Your task to perform on an android device: Clear all items from cart on target. Add "lenovo thinkpad" to the cart on target Image 0: 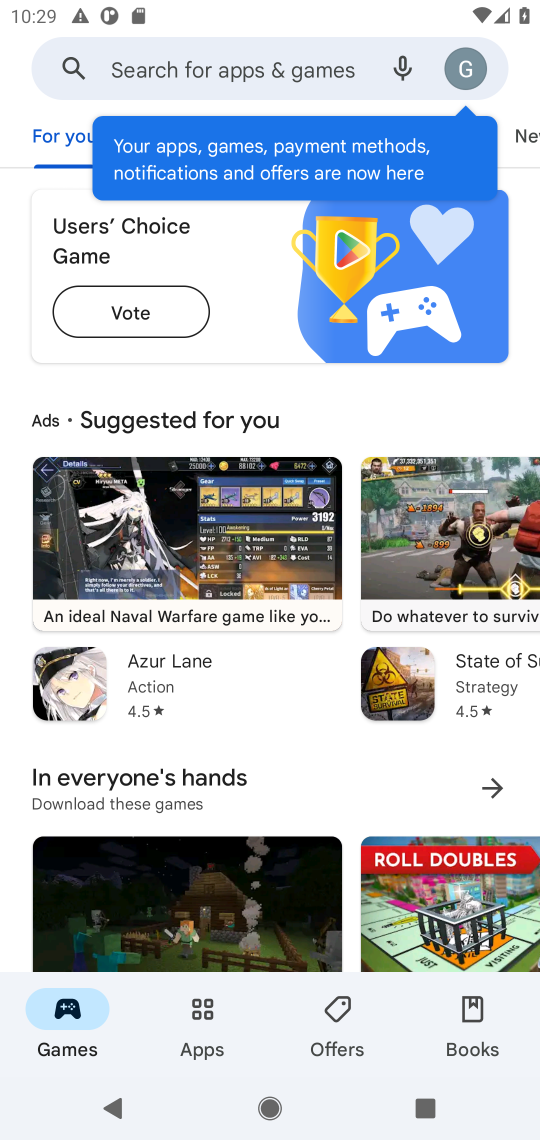
Step 0: press home button
Your task to perform on an android device: Clear all items from cart on target. Add "lenovo thinkpad" to the cart on target Image 1: 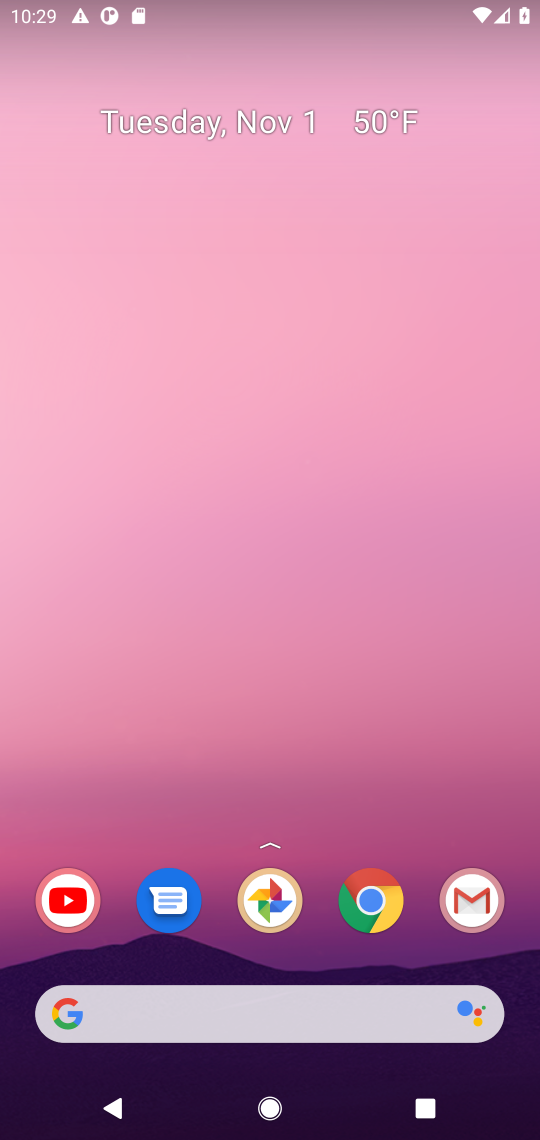
Step 1: click (351, 915)
Your task to perform on an android device: Clear all items from cart on target. Add "lenovo thinkpad" to the cart on target Image 2: 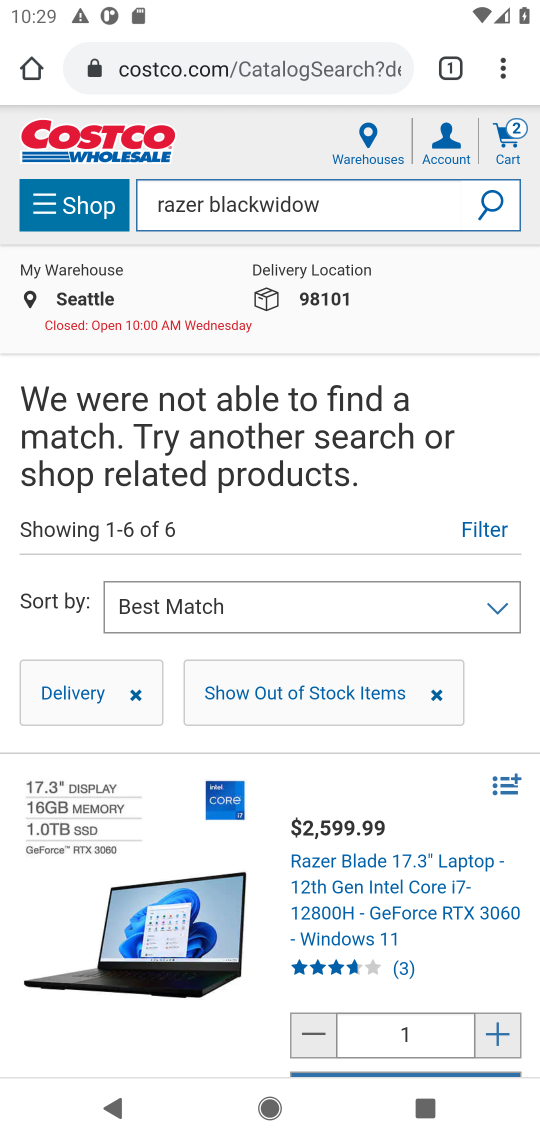
Step 2: click (270, 75)
Your task to perform on an android device: Clear all items from cart on target. Add "lenovo thinkpad" to the cart on target Image 3: 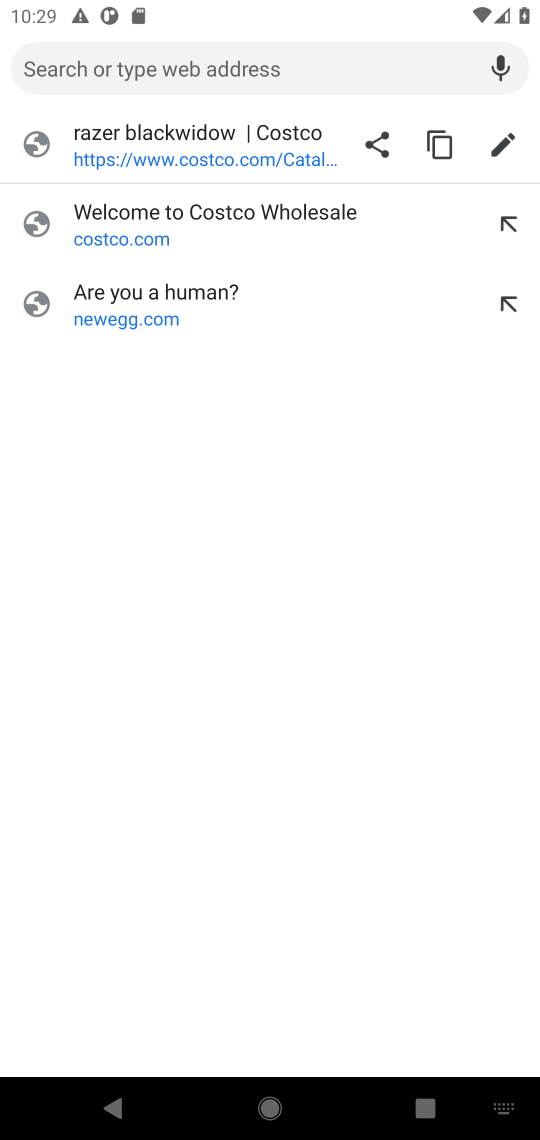
Step 3: type "target"
Your task to perform on an android device: Clear all items from cart on target. Add "lenovo thinkpad" to the cart on target Image 4: 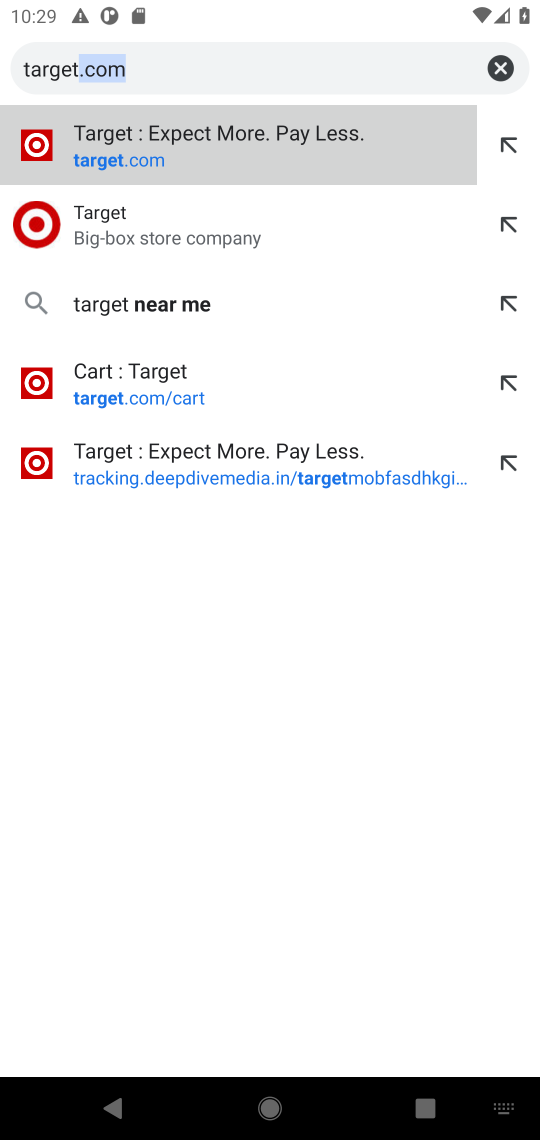
Step 4: click (125, 217)
Your task to perform on an android device: Clear all items from cart on target. Add "lenovo thinkpad" to the cart on target Image 5: 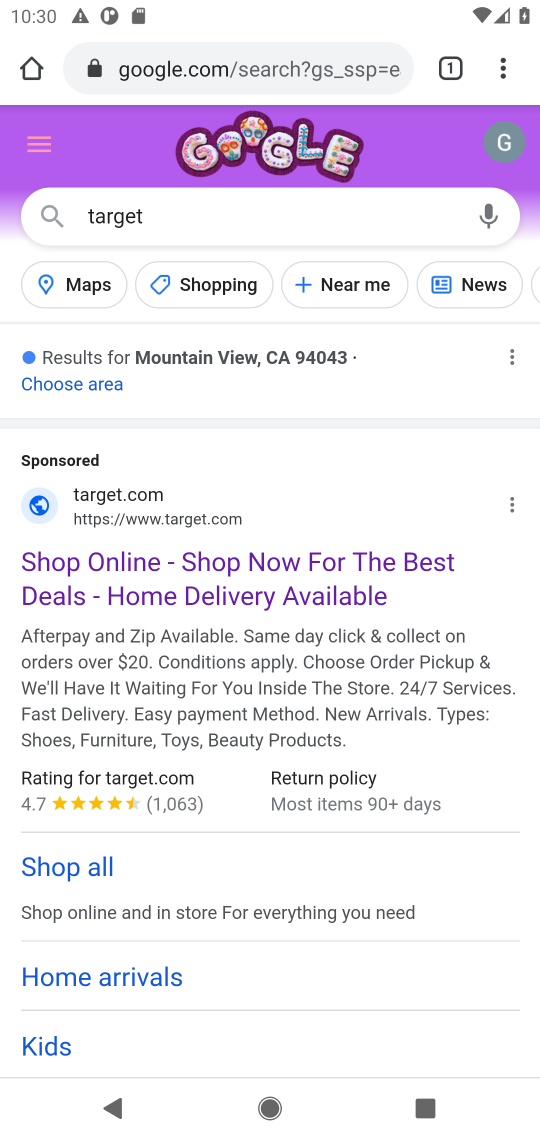
Step 5: click (110, 542)
Your task to perform on an android device: Clear all items from cart on target. Add "lenovo thinkpad" to the cart on target Image 6: 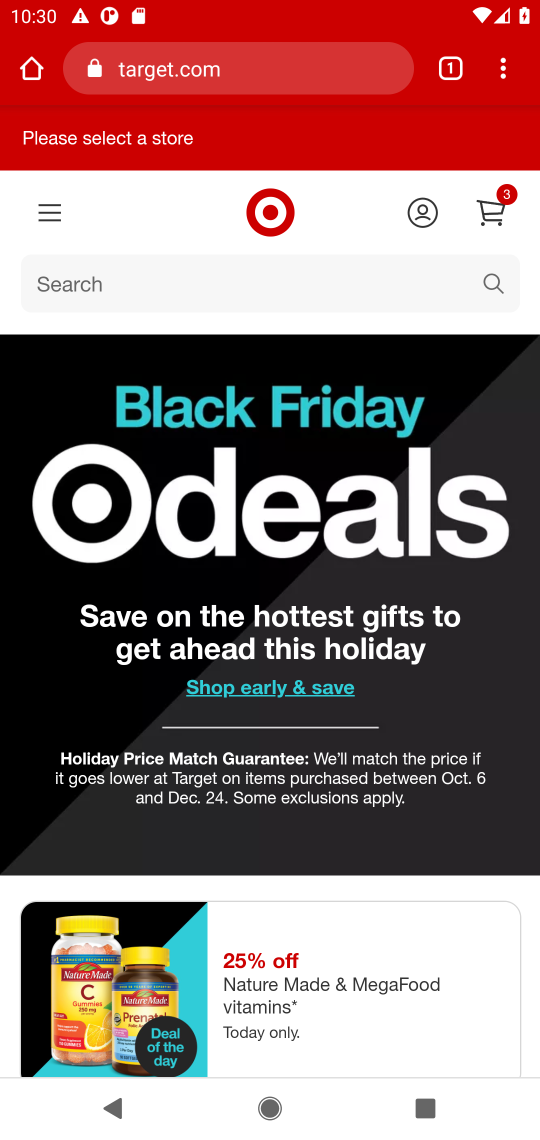
Step 6: click (506, 189)
Your task to perform on an android device: Clear all items from cart on target. Add "lenovo thinkpad" to the cart on target Image 7: 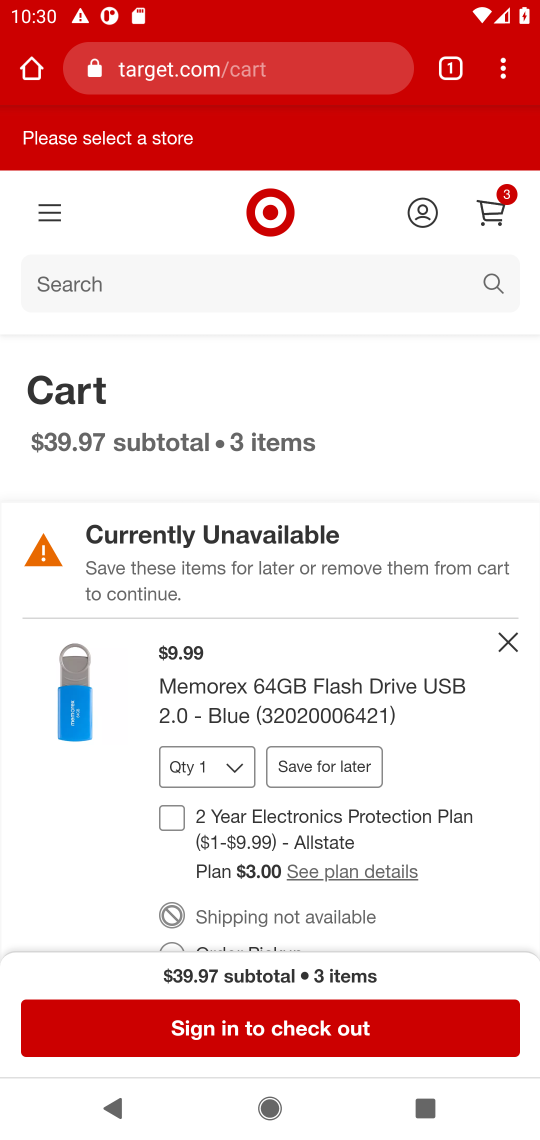
Step 7: click (511, 638)
Your task to perform on an android device: Clear all items from cart on target. Add "lenovo thinkpad" to the cart on target Image 8: 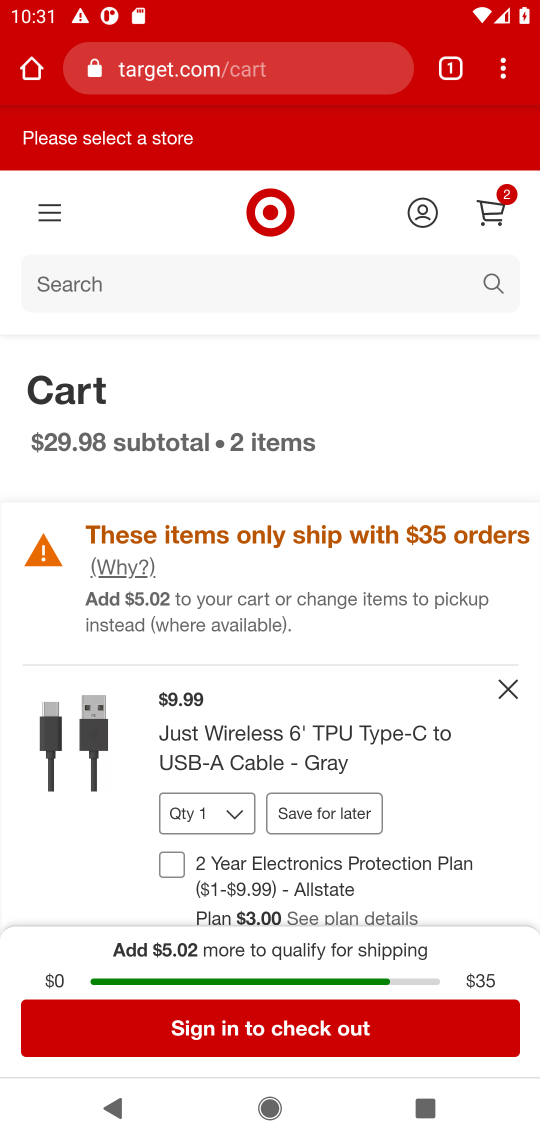
Step 8: click (504, 686)
Your task to perform on an android device: Clear all items from cart on target. Add "lenovo thinkpad" to the cart on target Image 9: 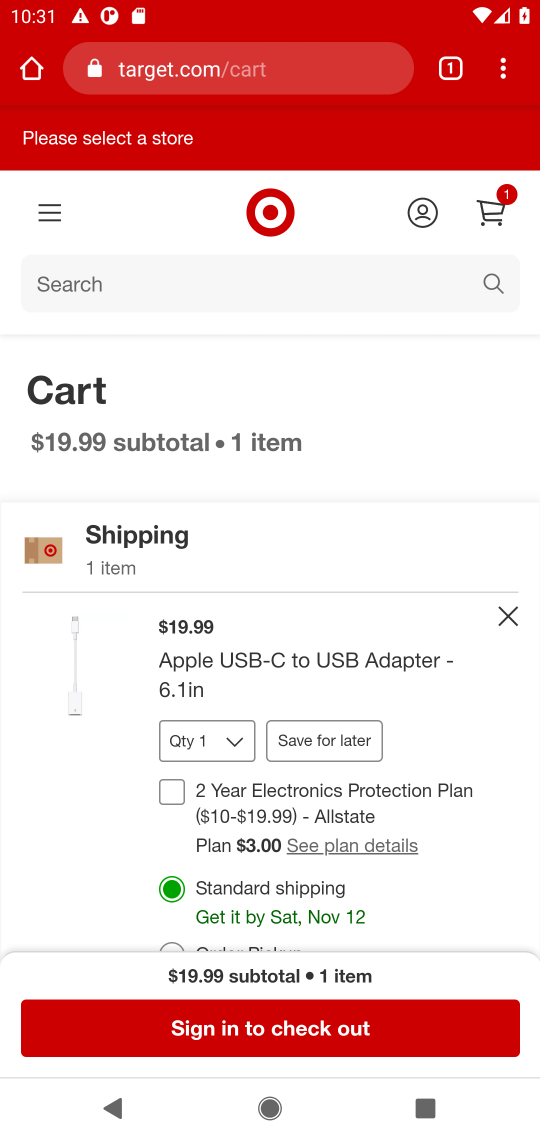
Step 9: click (500, 610)
Your task to perform on an android device: Clear all items from cart on target. Add "lenovo thinkpad" to the cart on target Image 10: 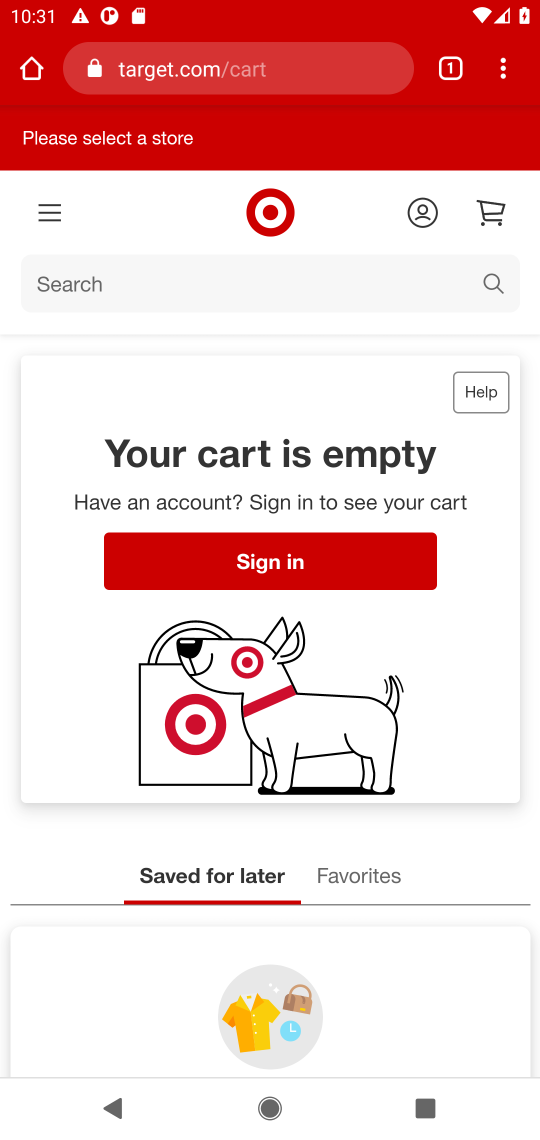
Step 10: click (335, 277)
Your task to perform on an android device: Clear all items from cart on target. Add "lenovo thinkpad" to the cart on target Image 11: 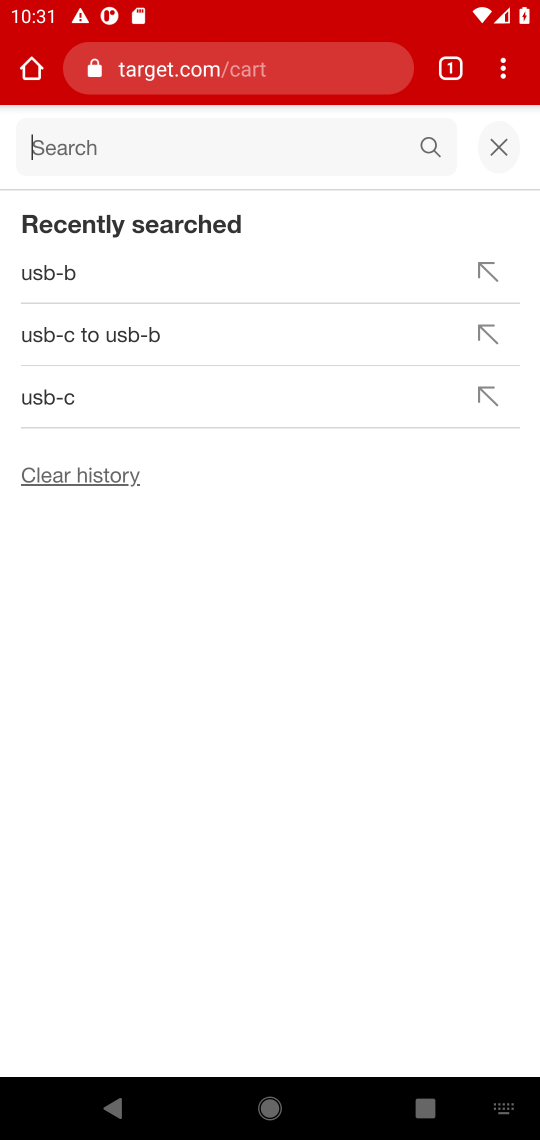
Step 11: type "lenovo thinkpad"
Your task to perform on an android device: Clear all items from cart on target. Add "lenovo thinkpad" to the cart on target Image 12: 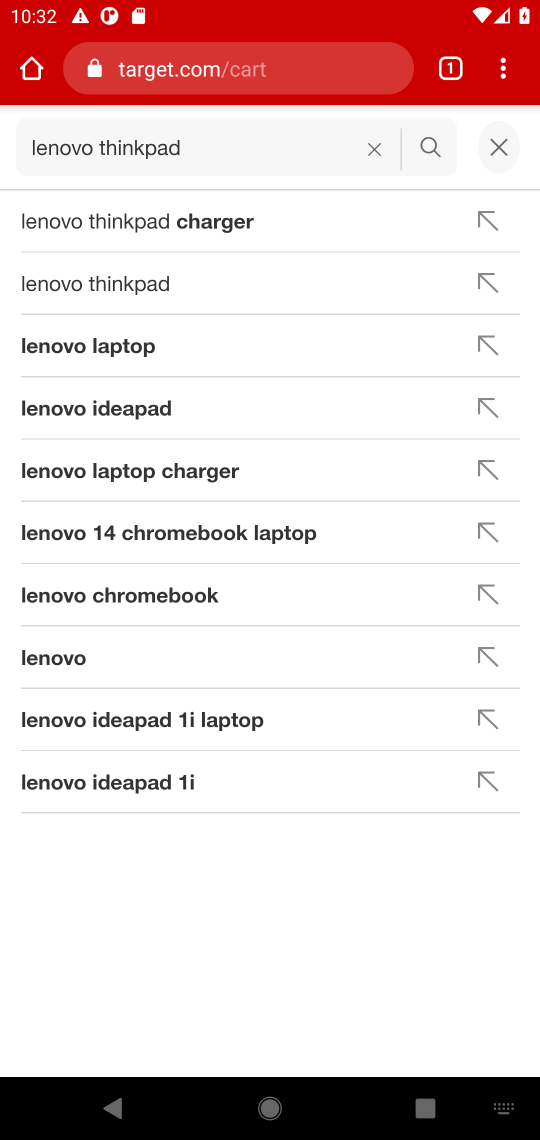
Step 12: click (430, 144)
Your task to perform on an android device: Clear all items from cart on target. Add "lenovo thinkpad" to the cart on target Image 13: 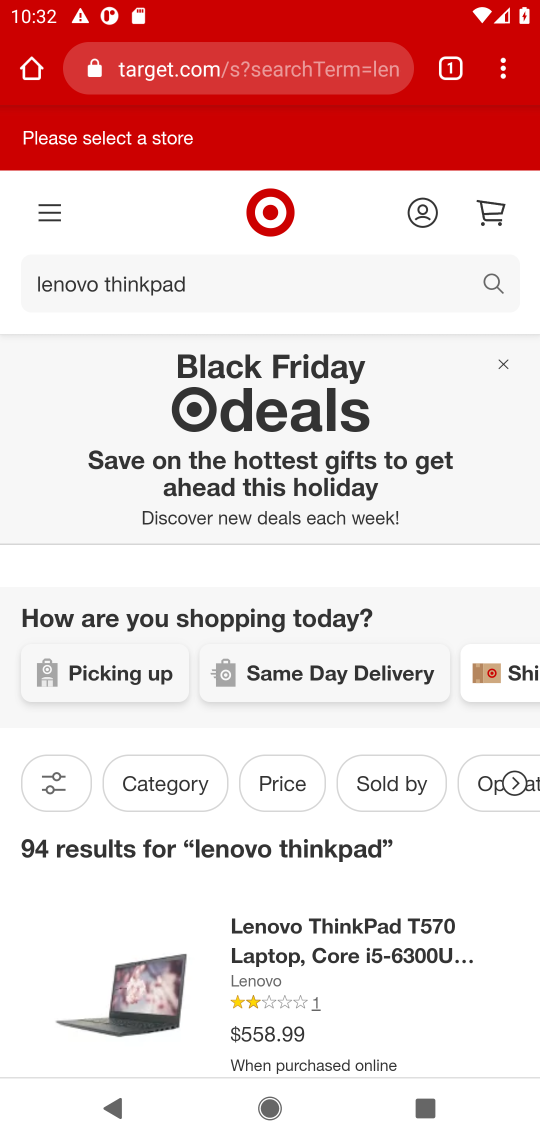
Step 13: drag from (412, 1002) to (468, 271)
Your task to perform on an android device: Clear all items from cart on target. Add "lenovo thinkpad" to the cart on target Image 14: 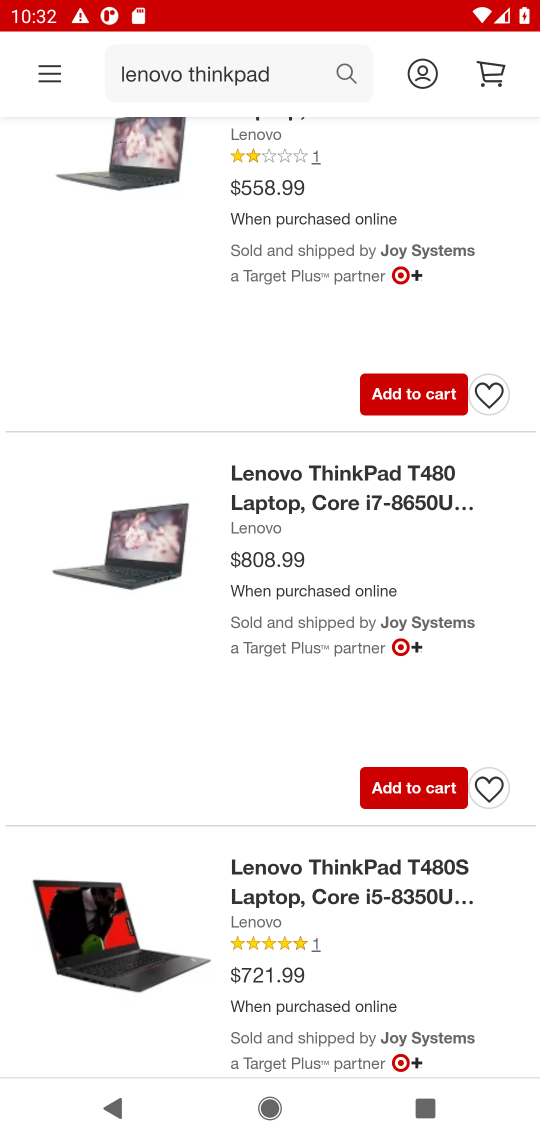
Step 14: click (415, 402)
Your task to perform on an android device: Clear all items from cart on target. Add "lenovo thinkpad" to the cart on target Image 15: 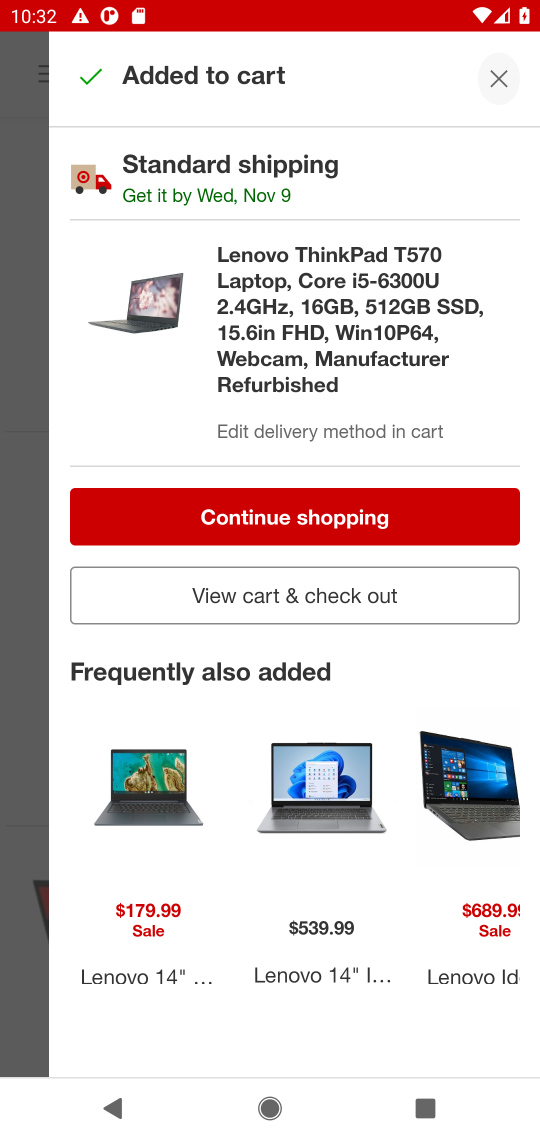
Step 15: task complete